Your task to perform on an android device: check google app version Image 0: 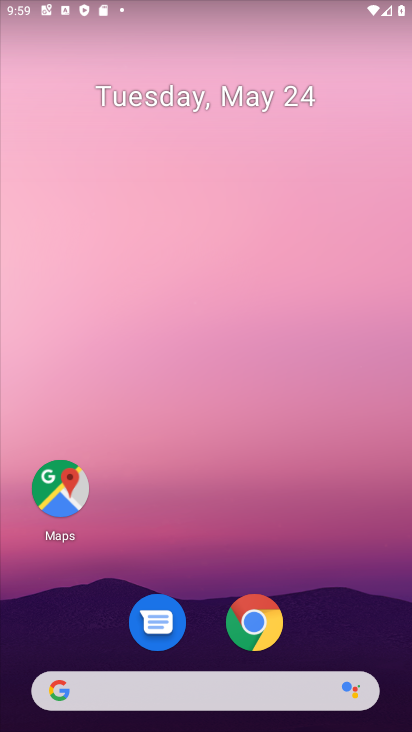
Step 0: drag from (277, 698) to (323, 233)
Your task to perform on an android device: check google app version Image 1: 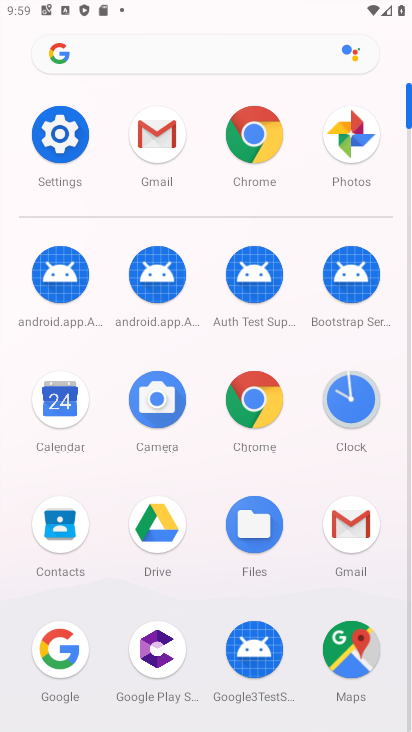
Step 1: click (254, 160)
Your task to perform on an android device: check google app version Image 2: 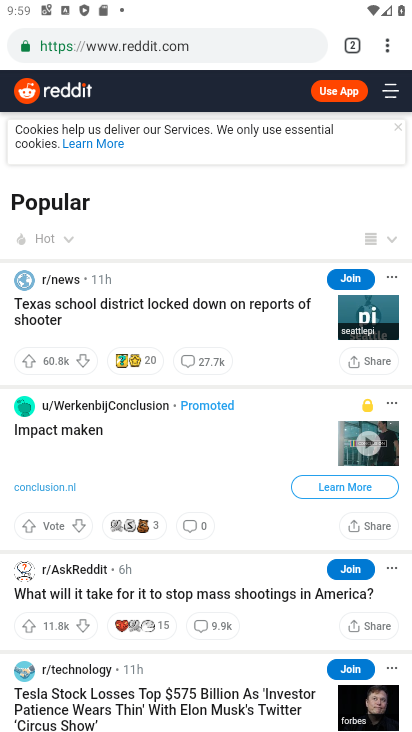
Step 2: click (393, 49)
Your task to perform on an android device: check google app version Image 3: 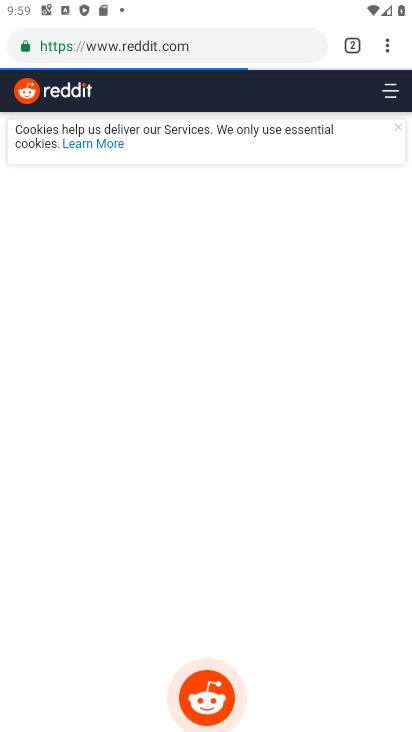
Step 3: click (380, 57)
Your task to perform on an android device: check google app version Image 4: 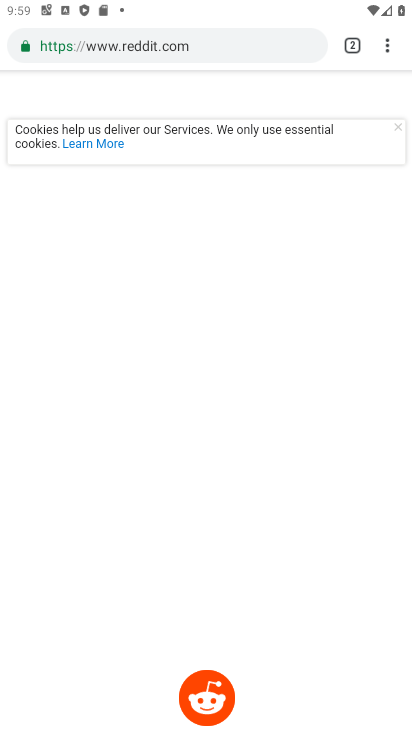
Step 4: click (384, 39)
Your task to perform on an android device: check google app version Image 5: 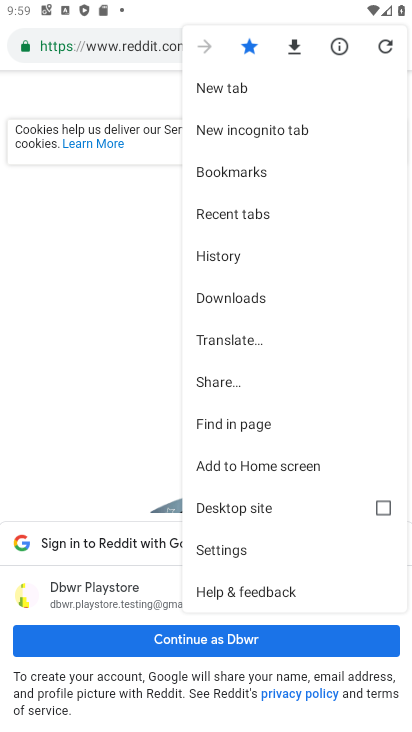
Step 5: click (230, 546)
Your task to perform on an android device: check google app version Image 6: 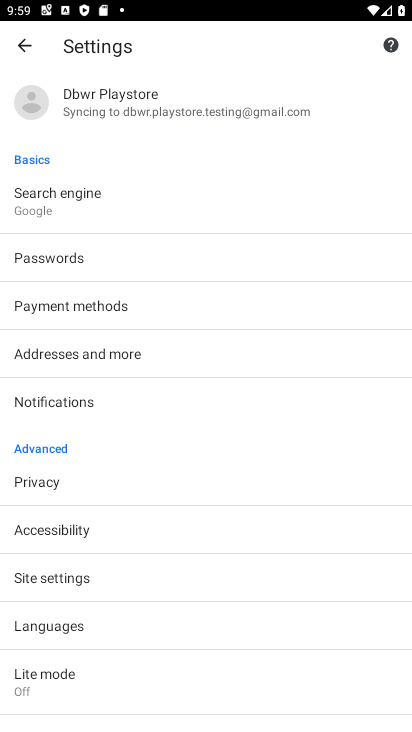
Step 6: drag from (239, 569) to (320, 219)
Your task to perform on an android device: check google app version Image 7: 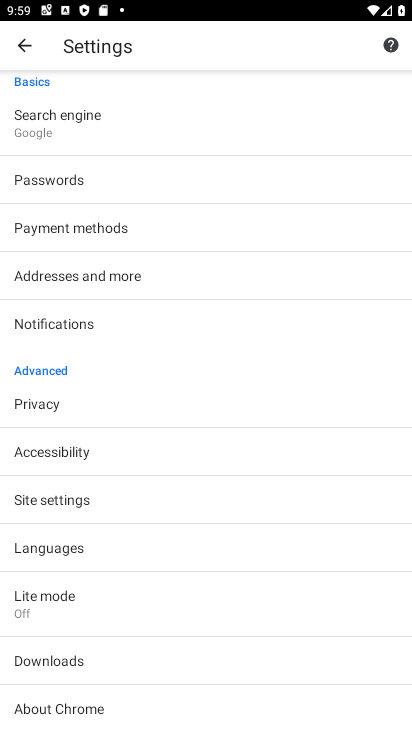
Step 7: drag from (266, 388) to (280, 245)
Your task to perform on an android device: check google app version Image 8: 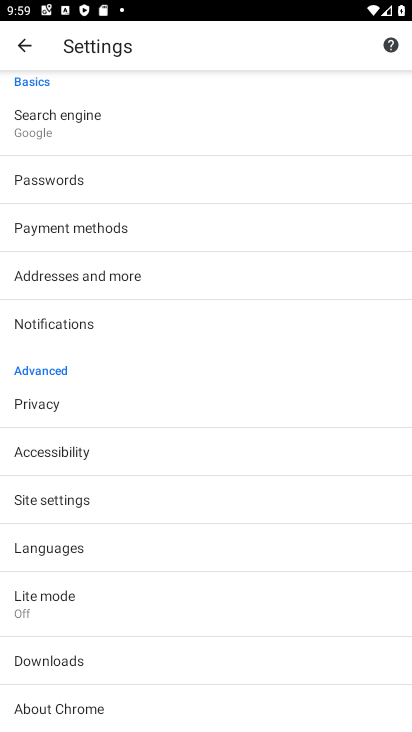
Step 8: click (63, 702)
Your task to perform on an android device: check google app version Image 9: 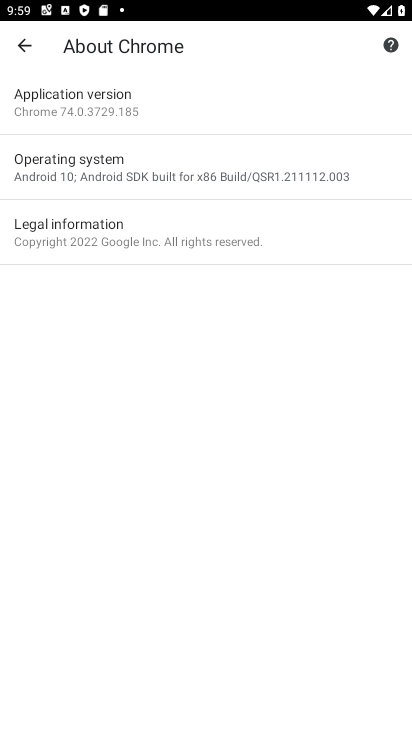
Step 9: click (132, 123)
Your task to perform on an android device: check google app version Image 10: 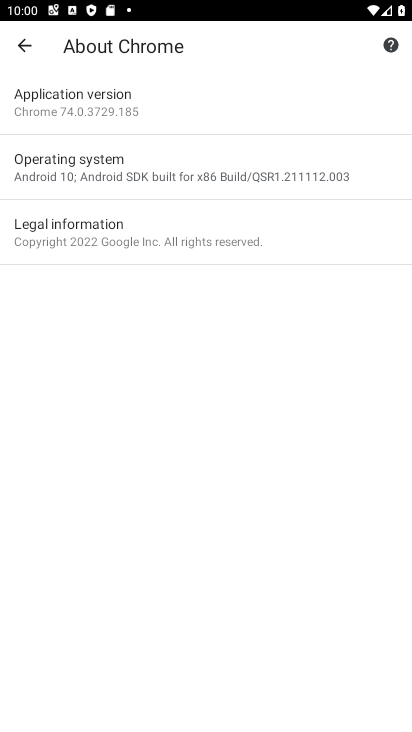
Step 10: click (181, 126)
Your task to perform on an android device: check google app version Image 11: 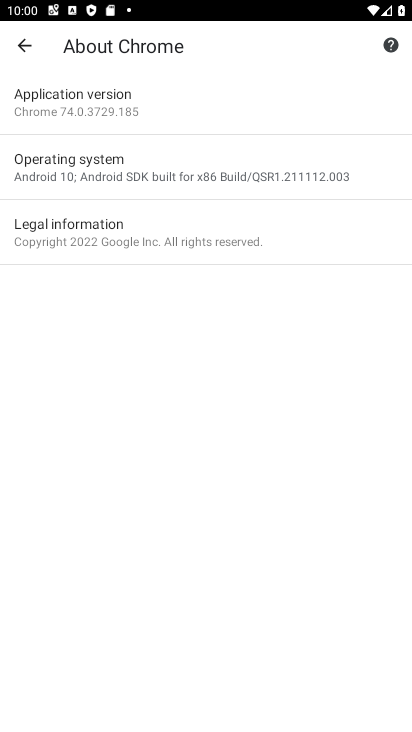
Step 11: task complete